Your task to perform on an android device: Go to Google Image 0: 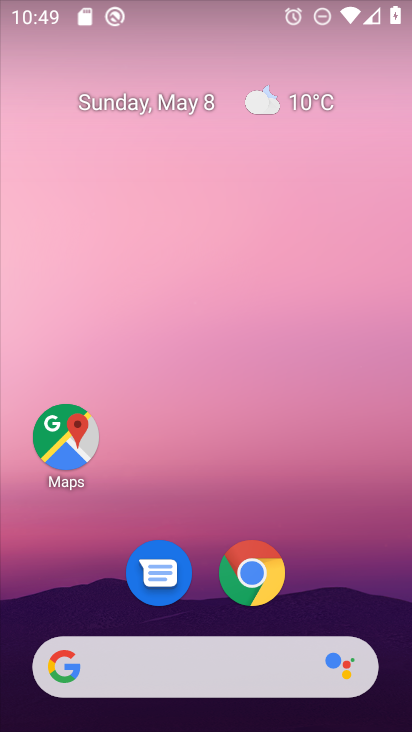
Step 0: drag from (373, 339) to (390, 21)
Your task to perform on an android device: Go to Google Image 1: 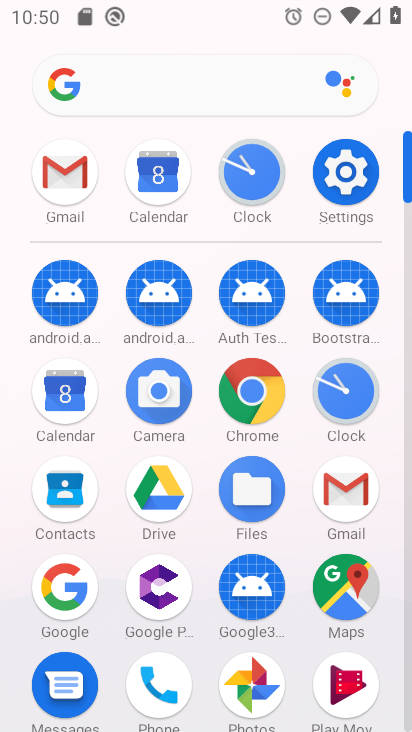
Step 1: click (59, 564)
Your task to perform on an android device: Go to Google Image 2: 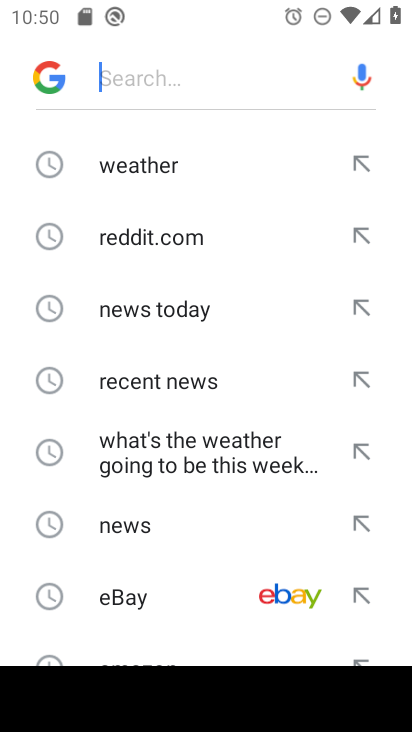
Step 2: task complete